Your task to perform on an android device: Go to location settings Image 0: 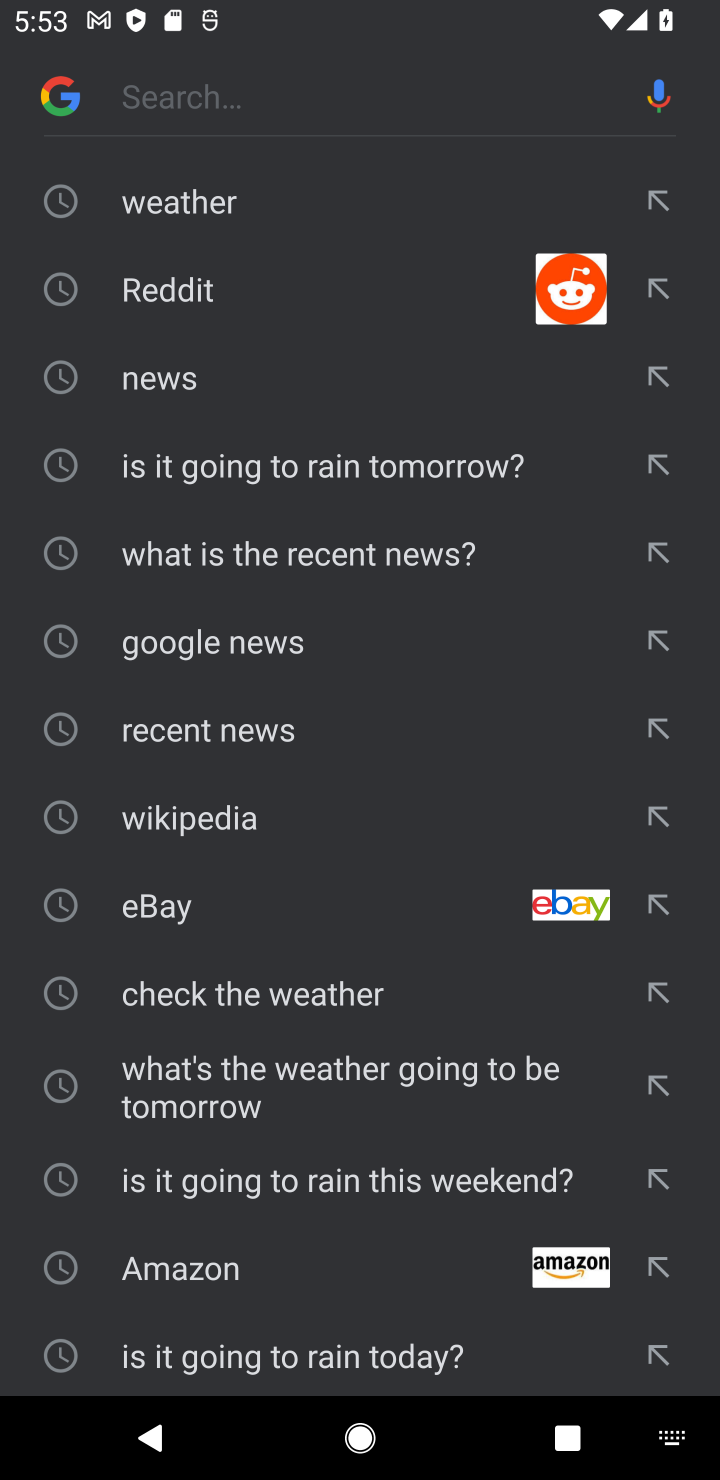
Step 0: press home button
Your task to perform on an android device: Go to location settings Image 1: 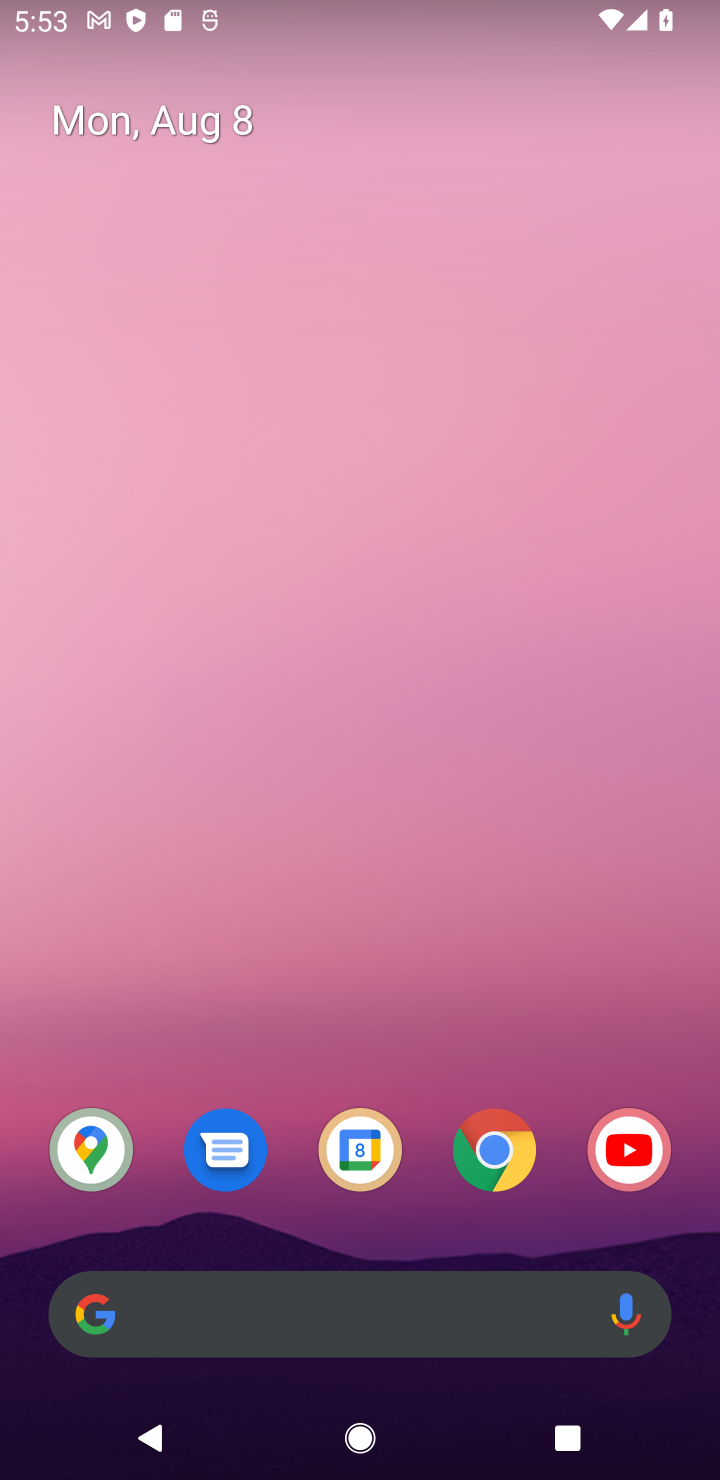
Step 1: drag from (367, 1259) to (397, 245)
Your task to perform on an android device: Go to location settings Image 2: 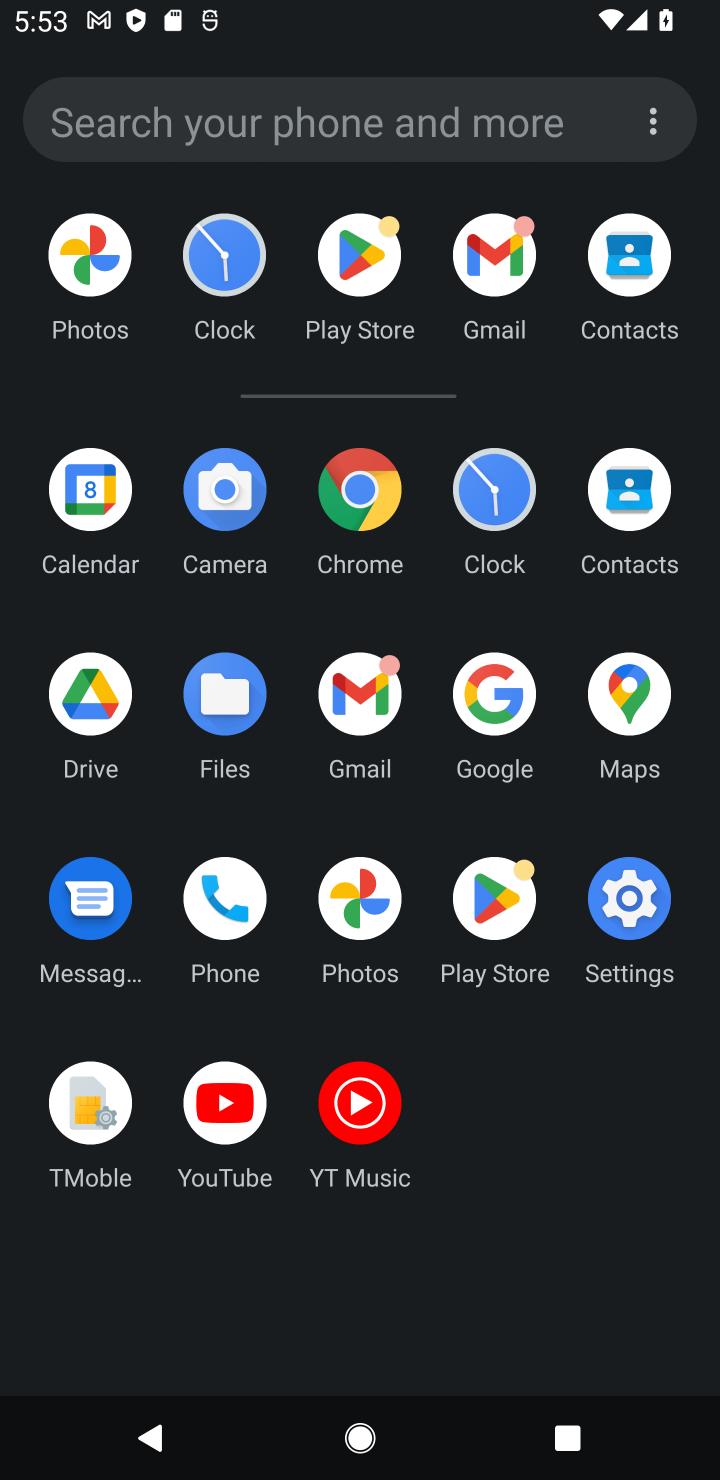
Step 2: click (632, 879)
Your task to perform on an android device: Go to location settings Image 3: 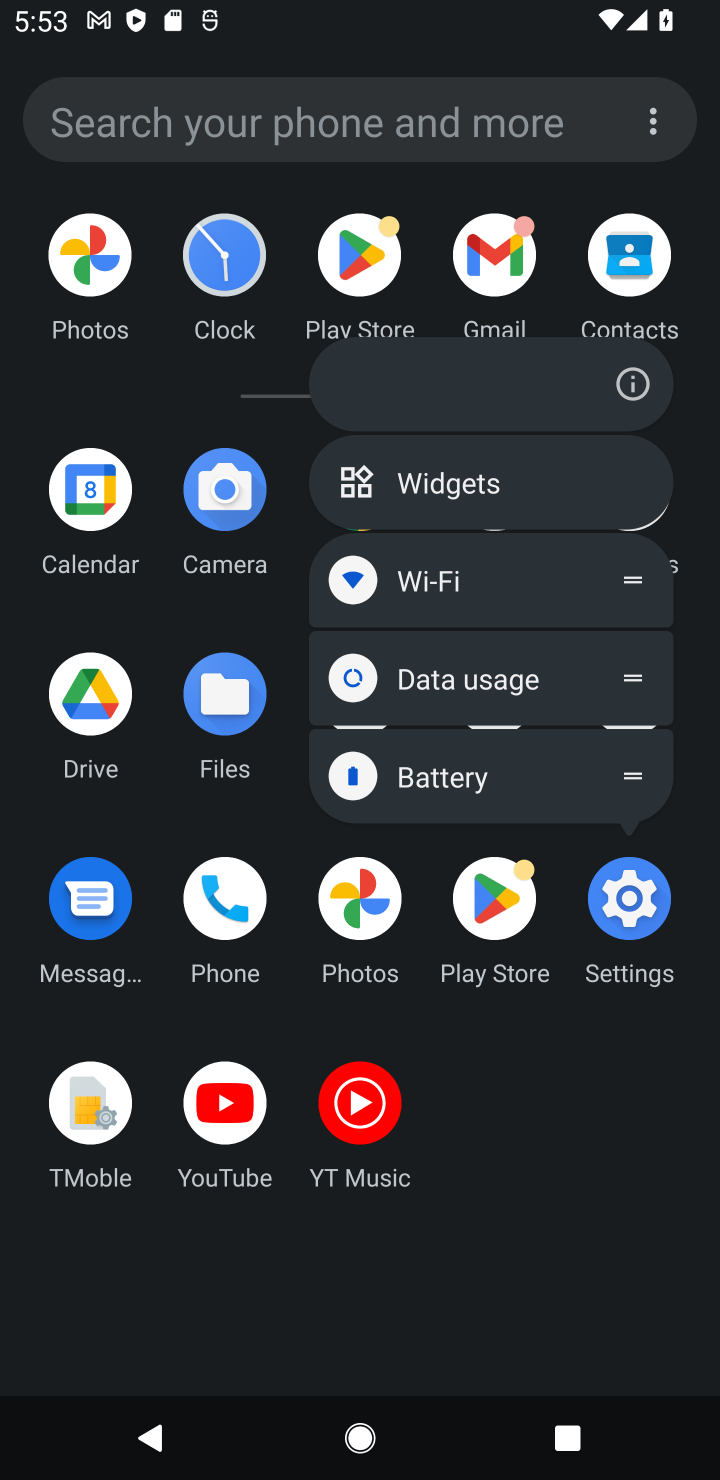
Step 3: click (625, 919)
Your task to perform on an android device: Go to location settings Image 4: 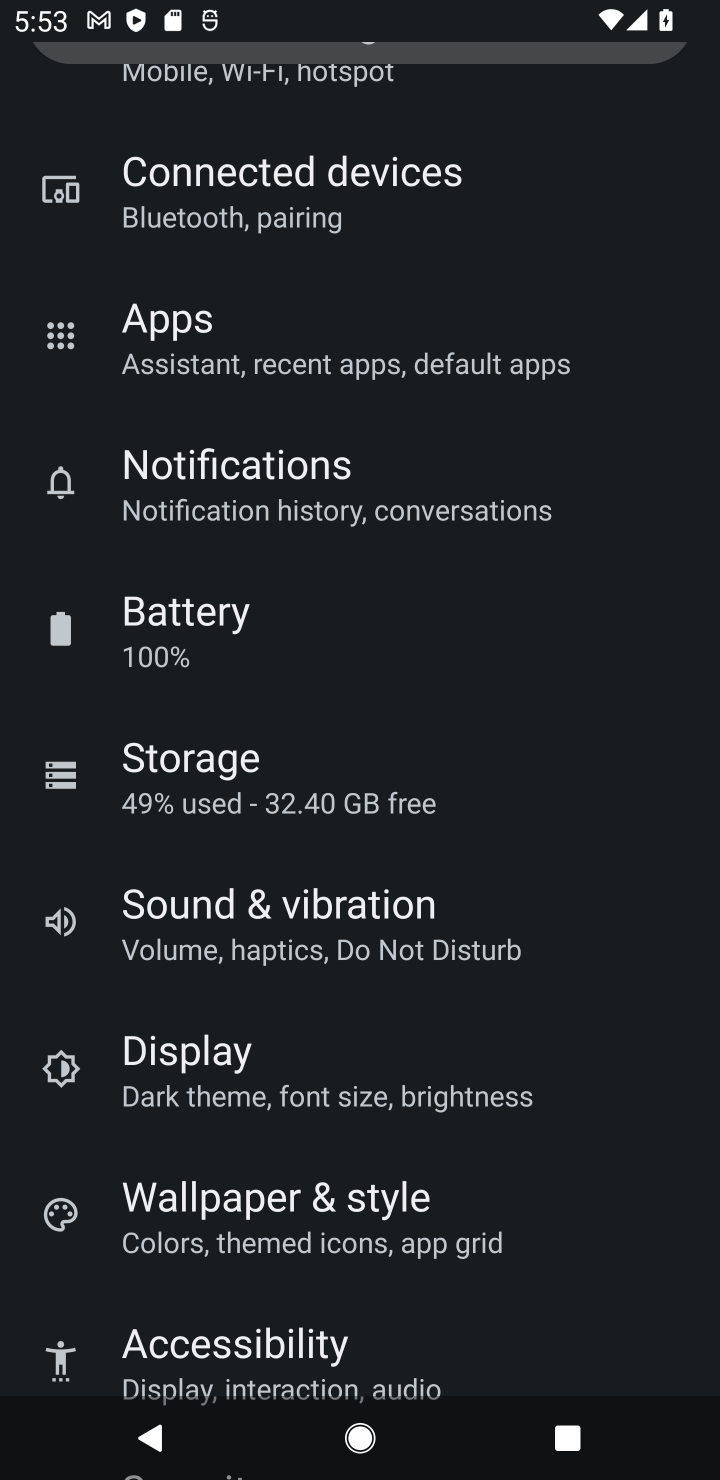
Step 4: drag from (298, 1031) to (332, 589)
Your task to perform on an android device: Go to location settings Image 5: 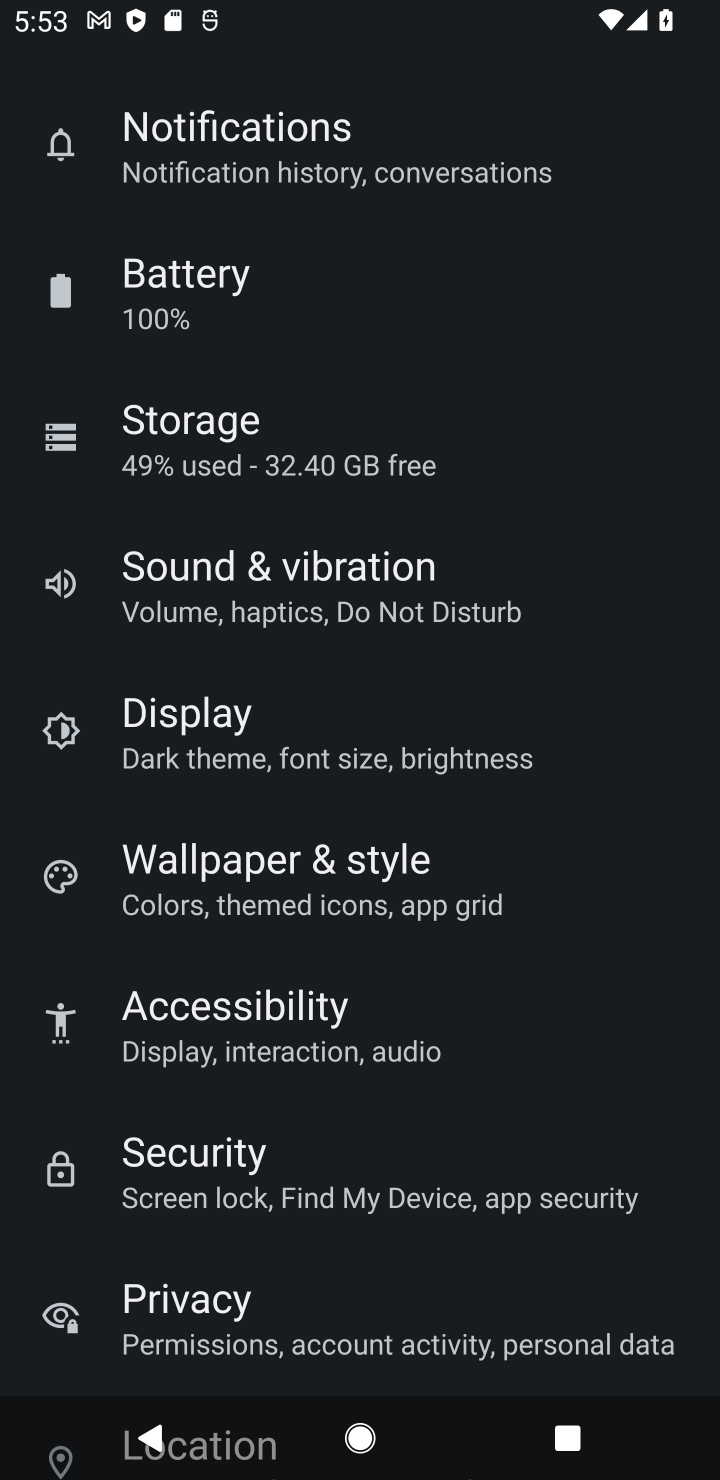
Step 5: drag from (300, 1298) to (323, 864)
Your task to perform on an android device: Go to location settings Image 6: 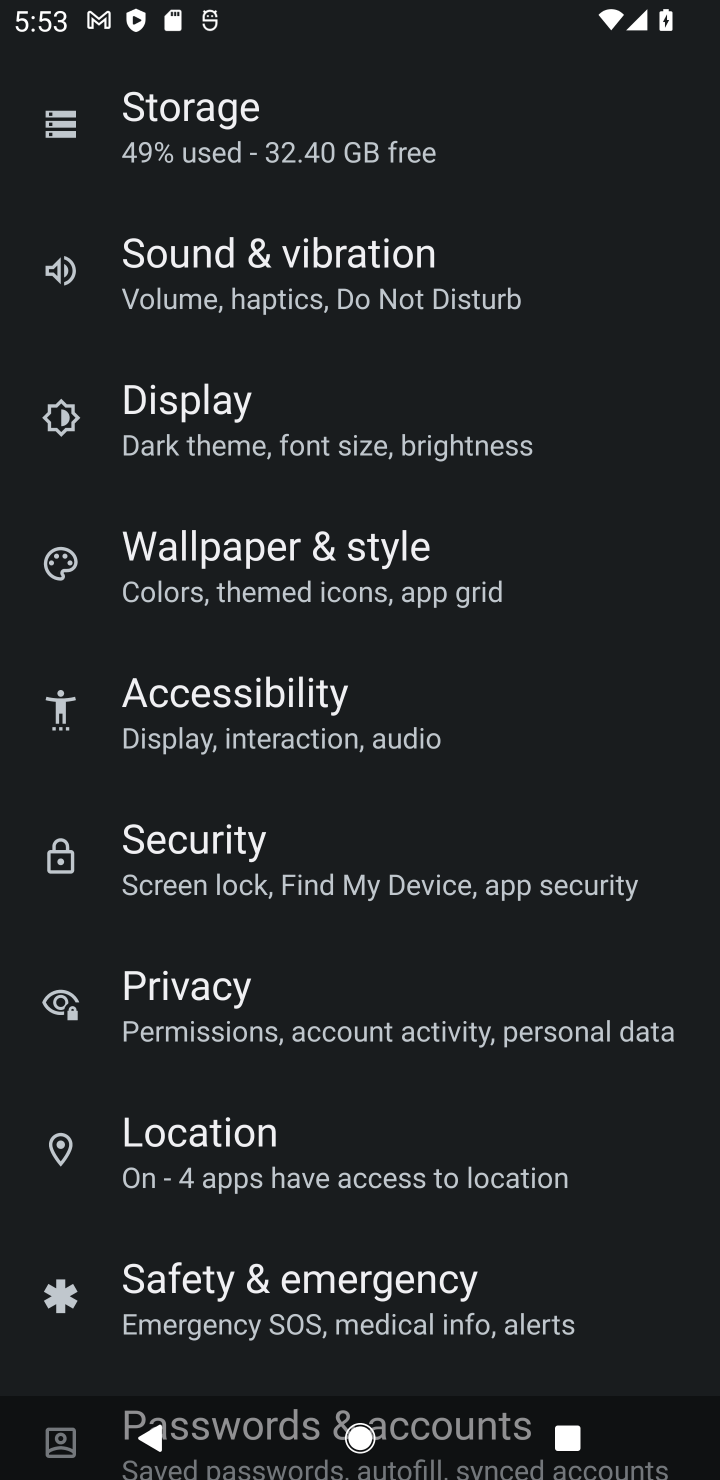
Step 6: click (290, 1230)
Your task to perform on an android device: Go to location settings Image 7: 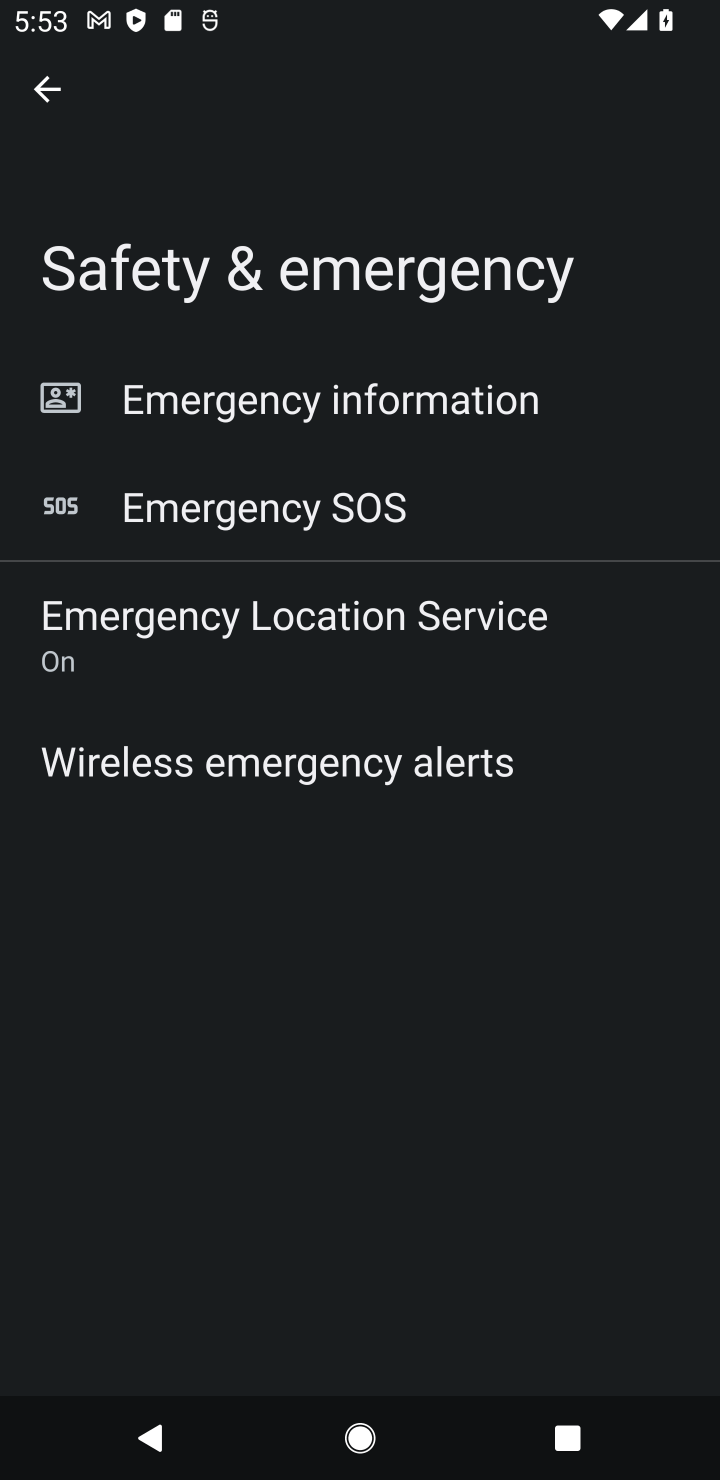
Step 7: task complete